Your task to perform on an android device: What's the weather? Image 0: 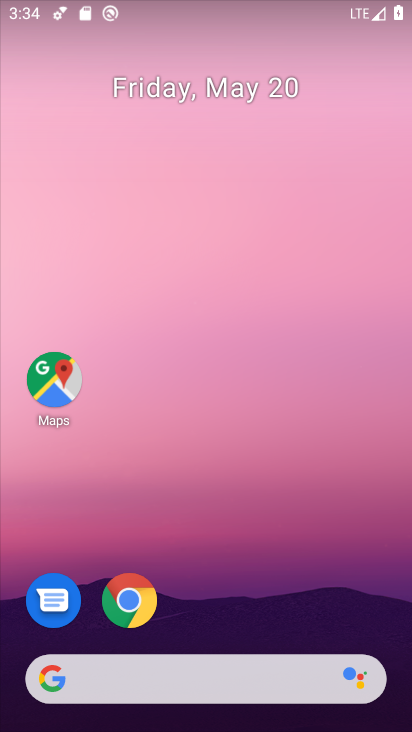
Step 0: click (272, 686)
Your task to perform on an android device: What's the weather? Image 1: 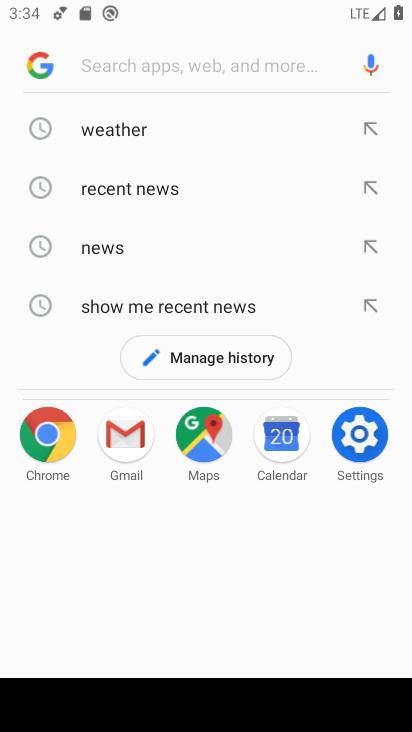
Step 1: click (130, 136)
Your task to perform on an android device: What's the weather? Image 2: 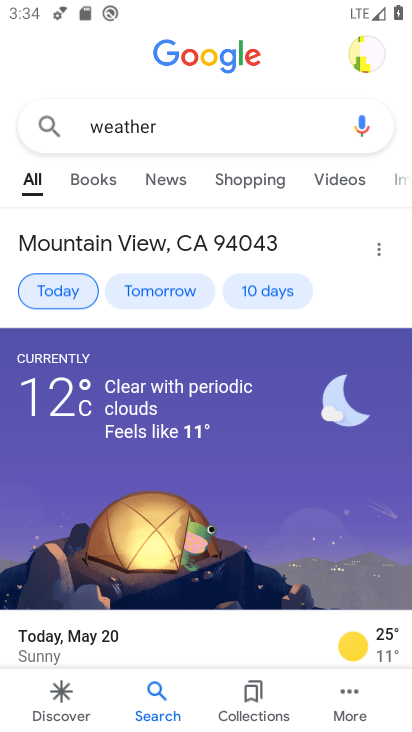
Step 2: task complete